Your task to perform on an android device: Open eBay Image 0: 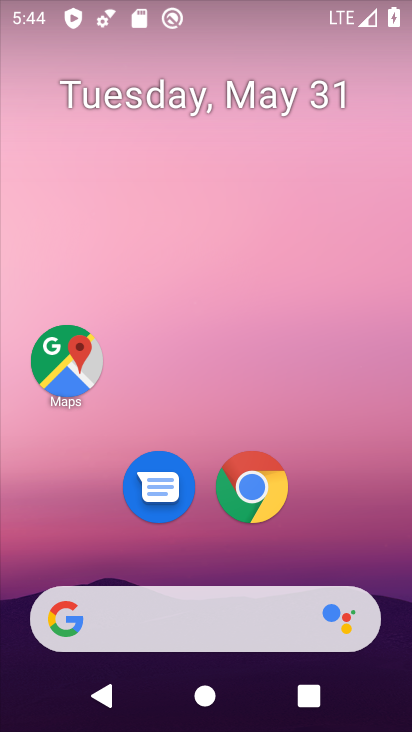
Step 0: click (217, 600)
Your task to perform on an android device: Open eBay Image 1: 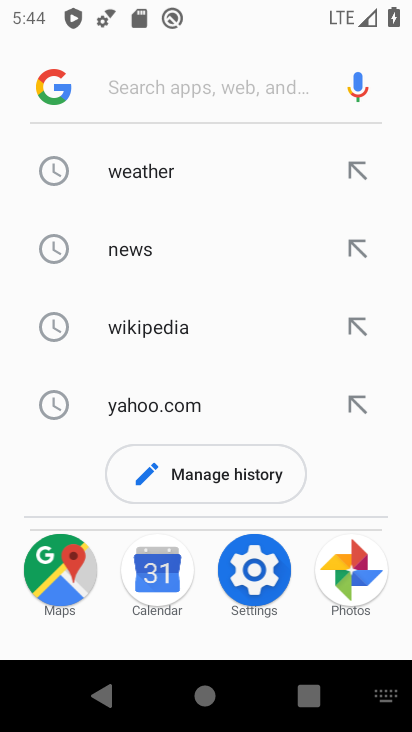
Step 1: type "ebay"
Your task to perform on an android device: Open eBay Image 2: 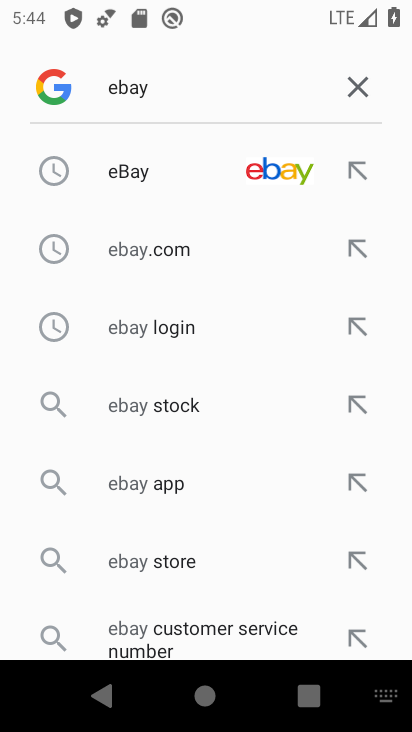
Step 2: click (151, 168)
Your task to perform on an android device: Open eBay Image 3: 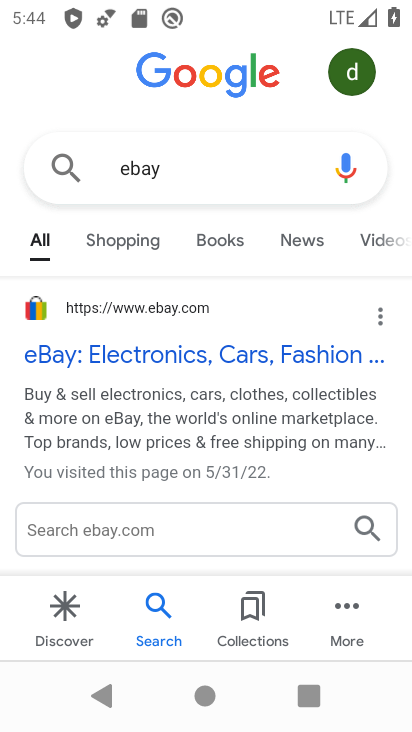
Step 3: task complete